Your task to perform on an android device: Open Android settings Image 0: 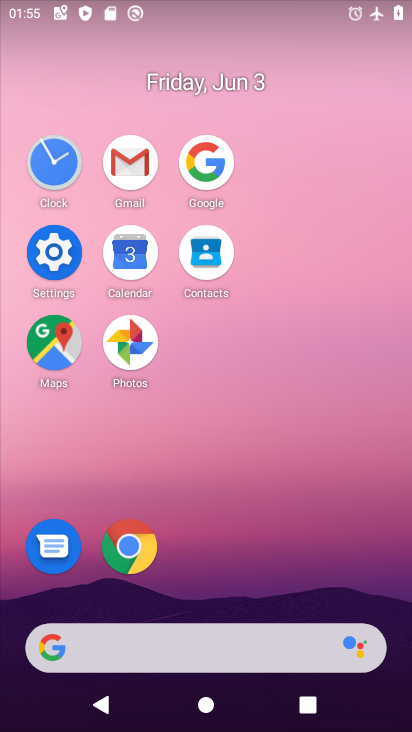
Step 0: click (62, 247)
Your task to perform on an android device: Open Android settings Image 1: 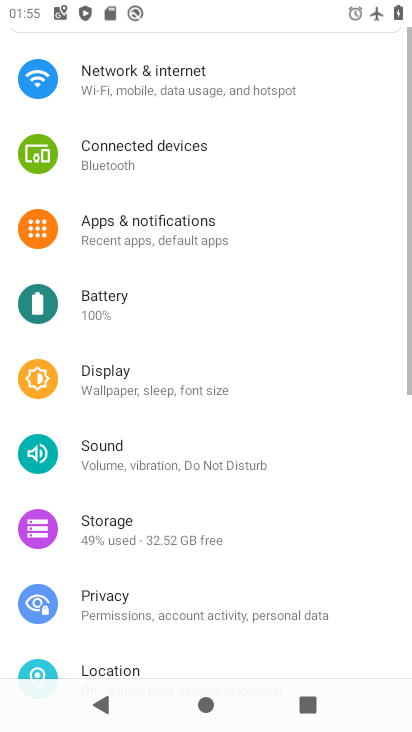
Step 1: task complete